Your task to perform on an android device: Open maps Image 0: 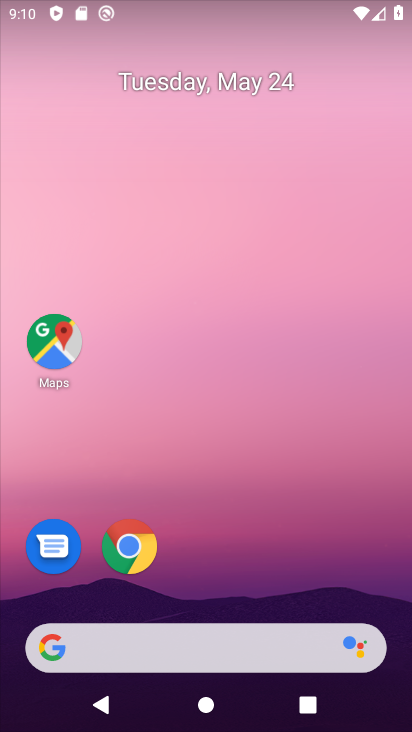
Step 0: drag from (248, 585) to (307, 144)
Your task to perform on an android device: Open maps Image 1: 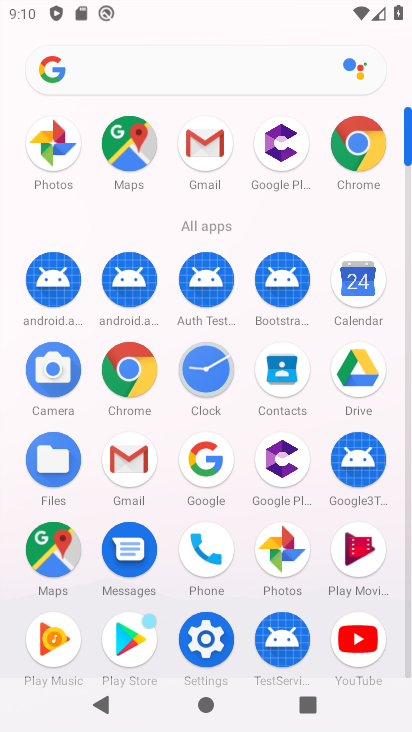
Step 1: click (61, 559)
Your task to perform on an android device: Open maps Image 2: 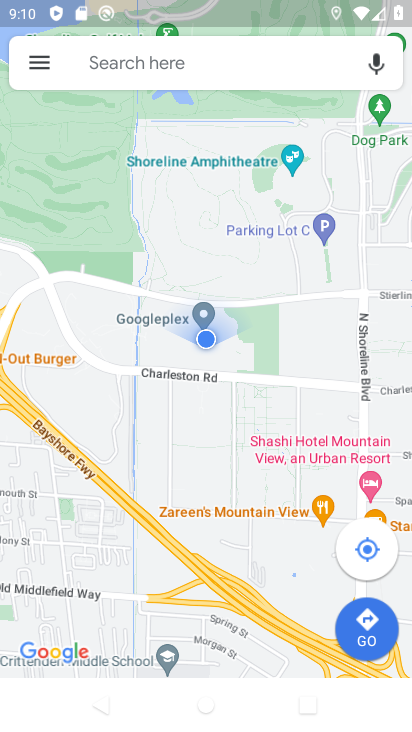
Step 2: task complete